Your task to perform on an android device: toggle airplane mode Image 0: 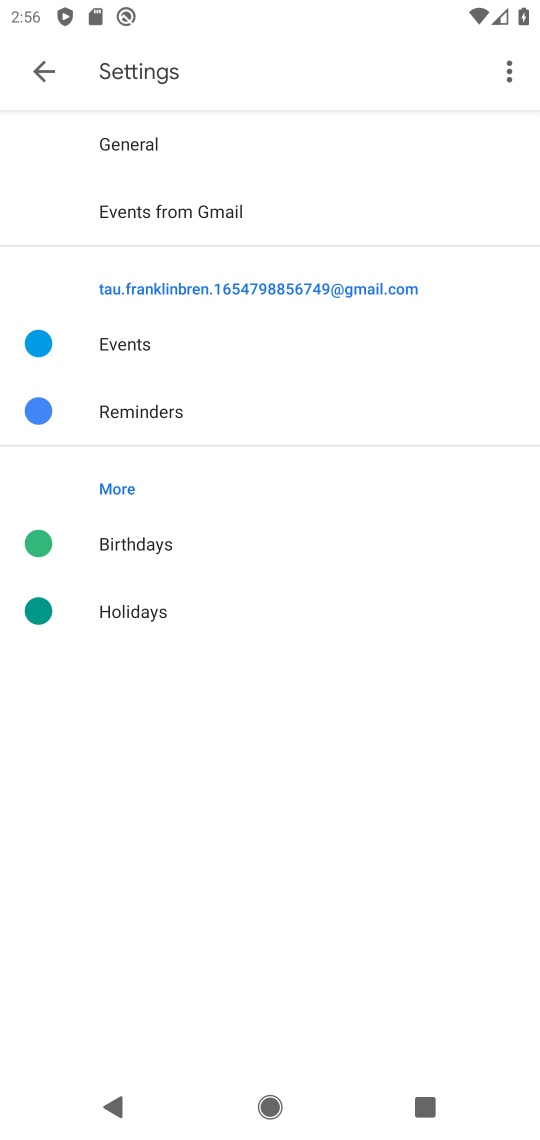
Step 0: press home button
Your task to perform on an android device: toggle airplane mode Image 1: 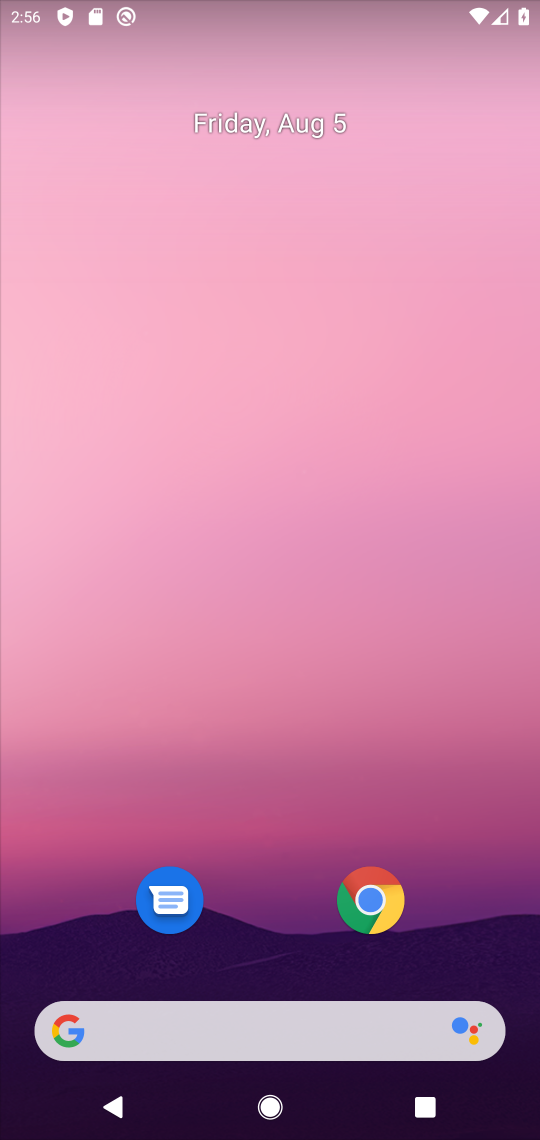
Step 1: click (171, 777)
Your task to perform on an android device: toggle airplane mode Image 2: 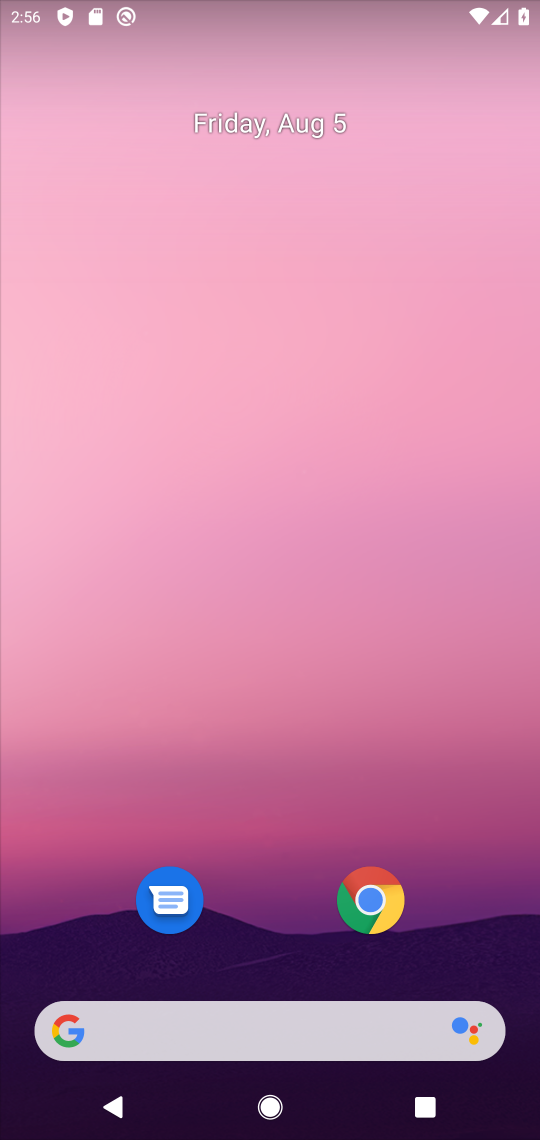
Step 2: drag from (305, 0) to (128, 999)
Your task to perform on an android device: toggle airplane mode Image 3: 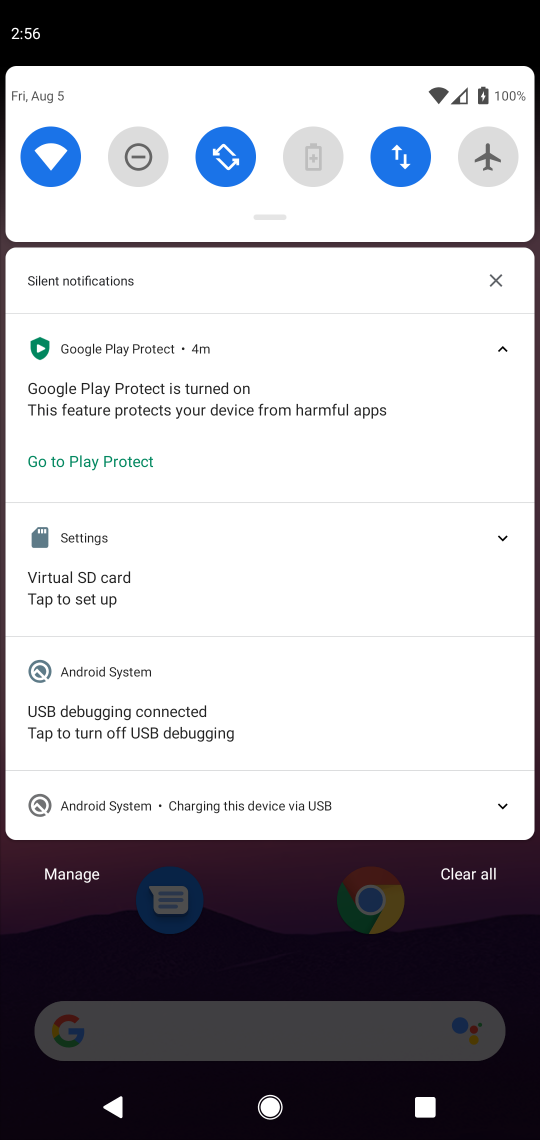
Step 3: click (481, 155)
Your task to perform on an android device: toggle airplane mode Image 4: 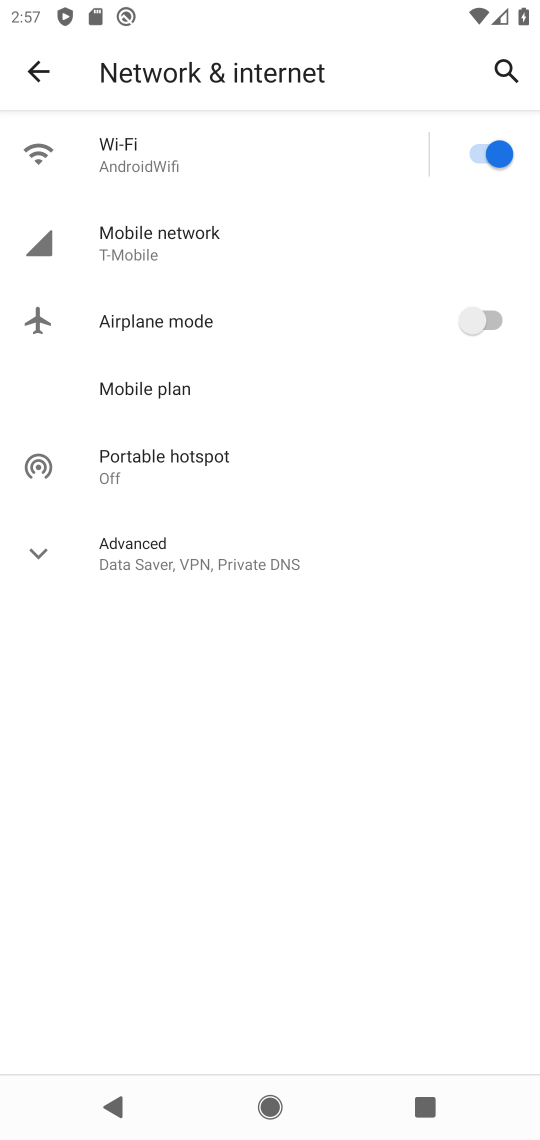
Step 4: click (475, 321)
Your task to perform on an android device: toggle airplane mode Image 5: 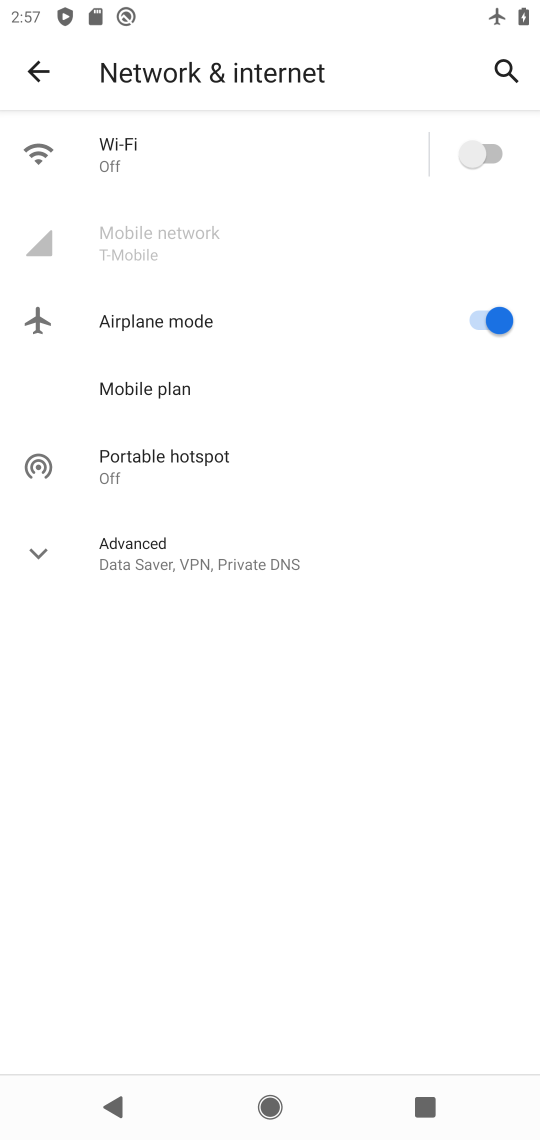
Step 5: task complete